Your task to perform on an android device: allow notifications from all sites in the chrome app Image 0: 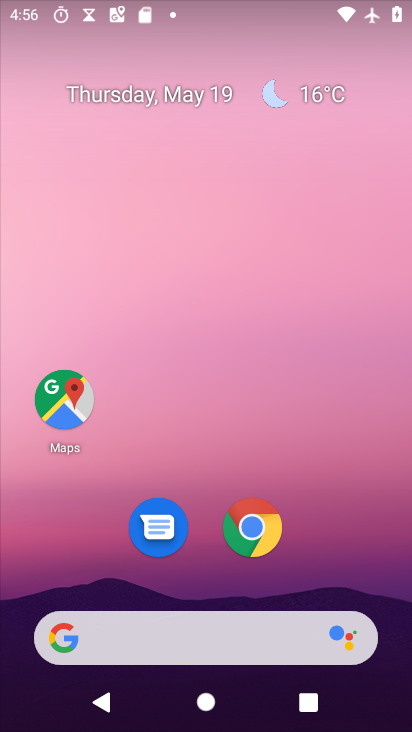
Step 0: click (258, 525)
Your task to perform on an android device: allow notifications from all sites in the chrome app Image 1: 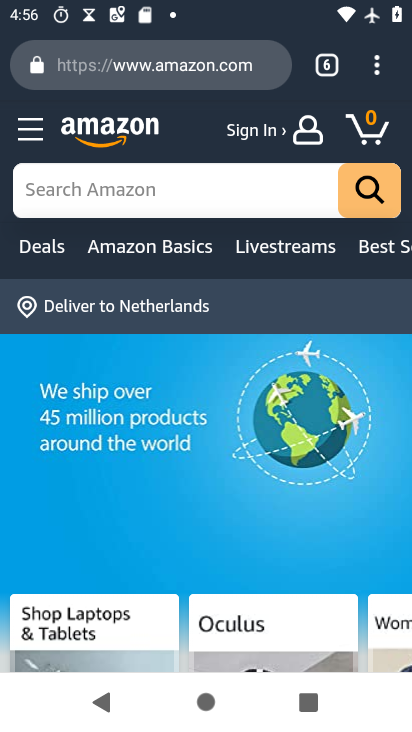
Step 1: click (389, 61)
Your task to perform on an android device: allow notifications from all sites in the chrome app Image 2: 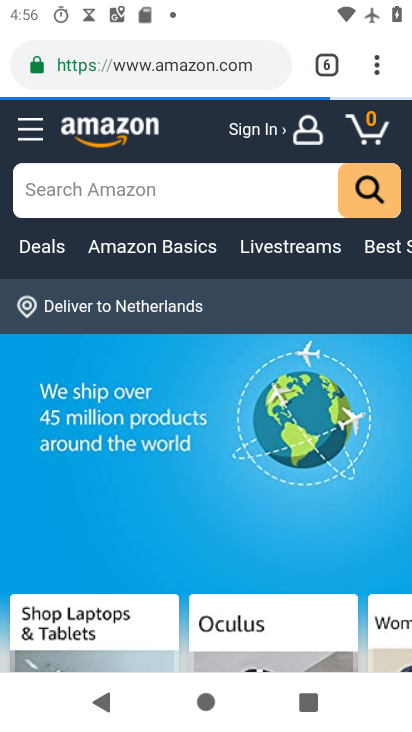
Step 2: click (371, 66)
Your task to perform on an android device: allow notifications from all sites in the chrome app Image 3: 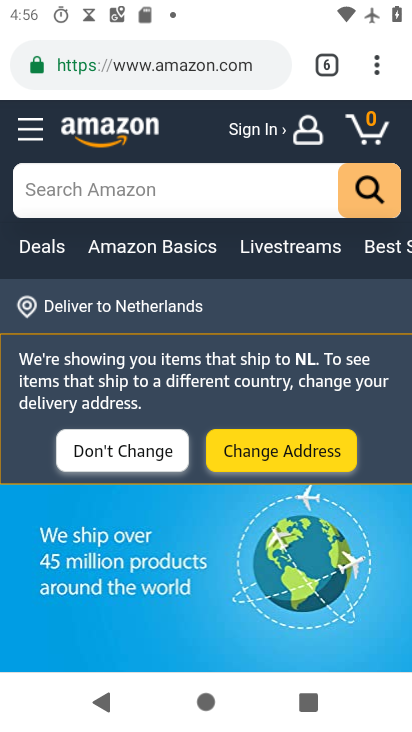
Step 3: click (369, 53)
Your task to perform on an android device: allow notifications from all sites in the chrome app Image 4: 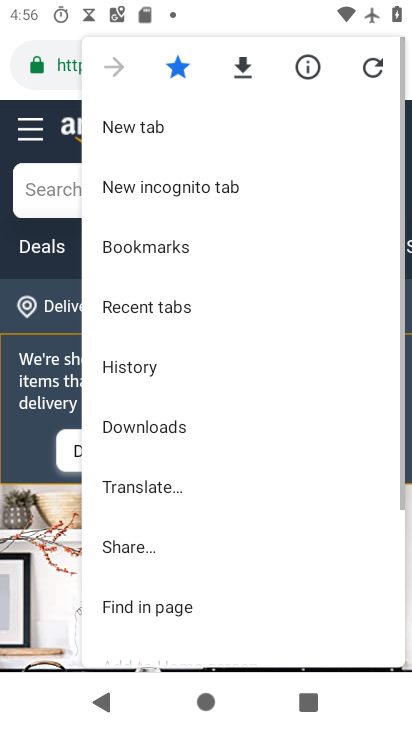
Step 4: drag from (279, 563) to (216, 31)
Your task to perform on an android device: allow notifications from all sites in the chrome app Image 5: 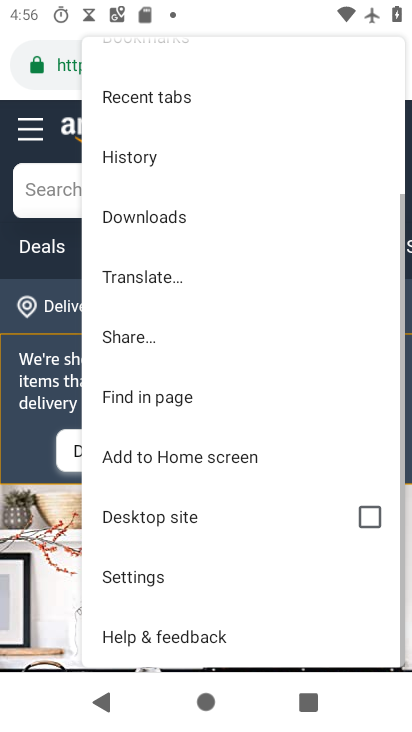
Step 5: click (202, 568)
Your task to perform on an android device: allow notifications from all sites in the chrome app Image 6: 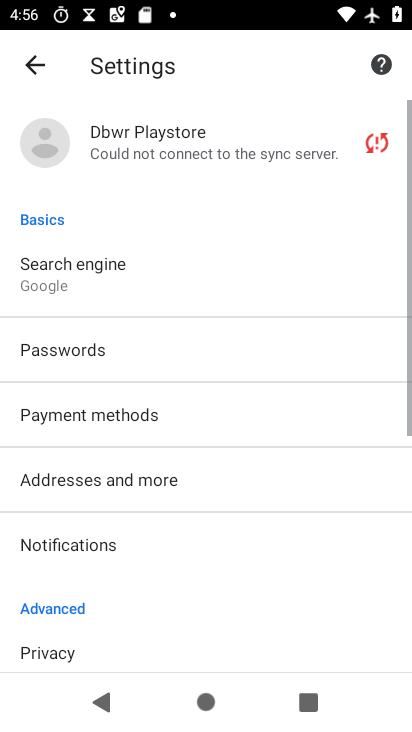
Step 6: drag from (201, 604) to (144, 191)
Your task to perform on an android device: allow notifications from all sites in the chrome app Image 7: 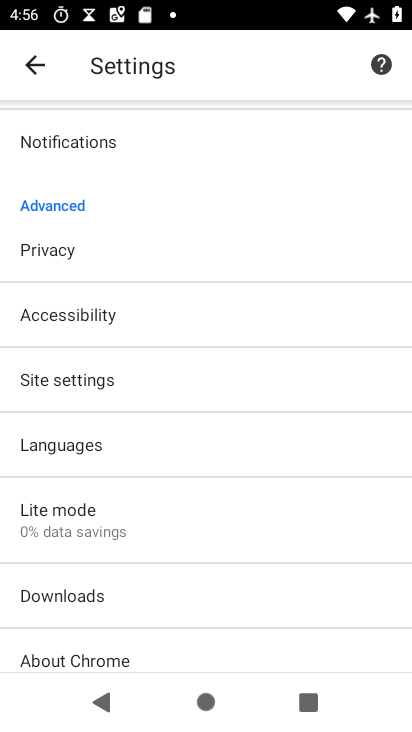
Step 7: click (87, 379)
Your task to perform on an android device: allow notifications from all sites in the chrome app Image 8: 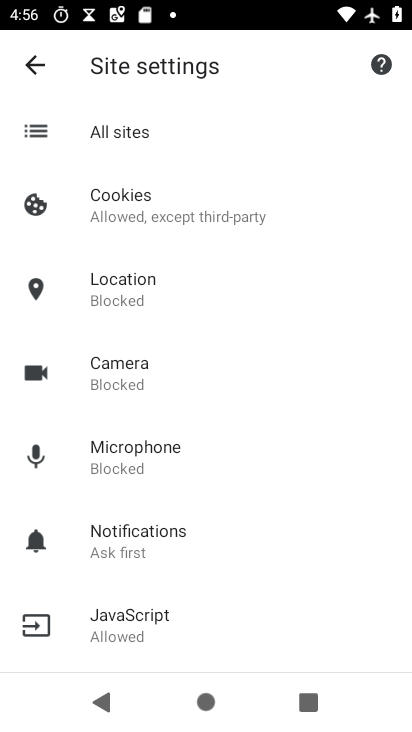
Step 8: click (183, 535)
Your task to perform on an android device: allow notifications from all sites in the chrome app Image 9: 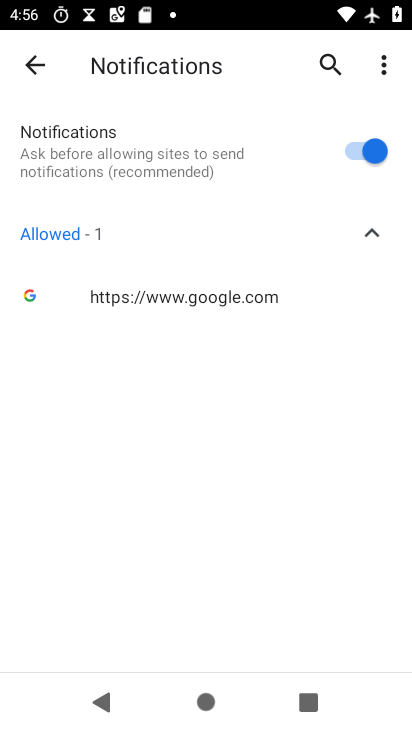
Step 9: task complete